Your task to perform on an android device: Open display settings Image 0: 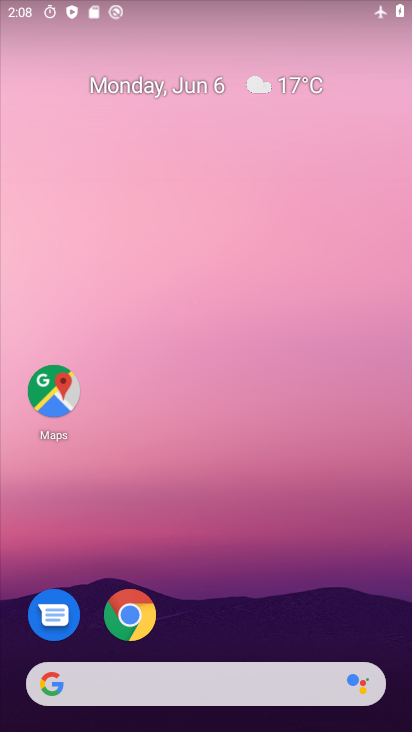
Step 0: drag from (179, 661) to (246, 265)
Your task to perform on an android device: Open display settings Image 1: 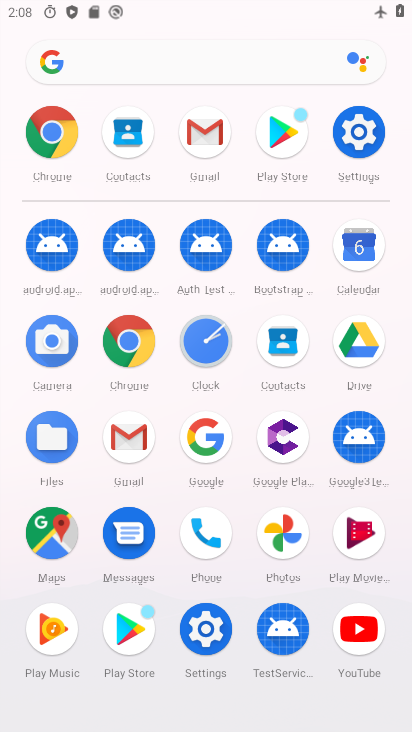
Step 1: click (199, 626)
Your task to perform on an android device: Open display settings Image 2: 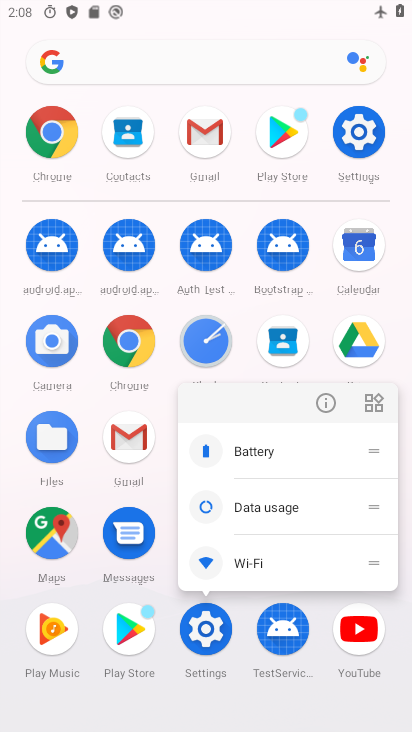
Step 2: click (334, 402)
Your task to perform on an android device: Open display settings Image 3: 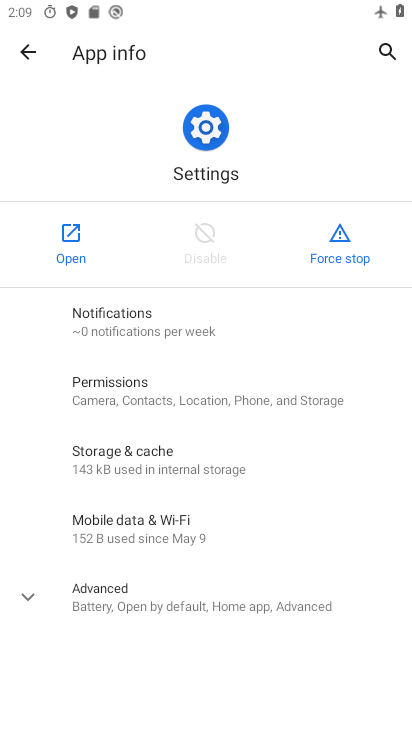
Step 3: click (75, 255)
Your task to perform on an android device: Open display settings Image 4: 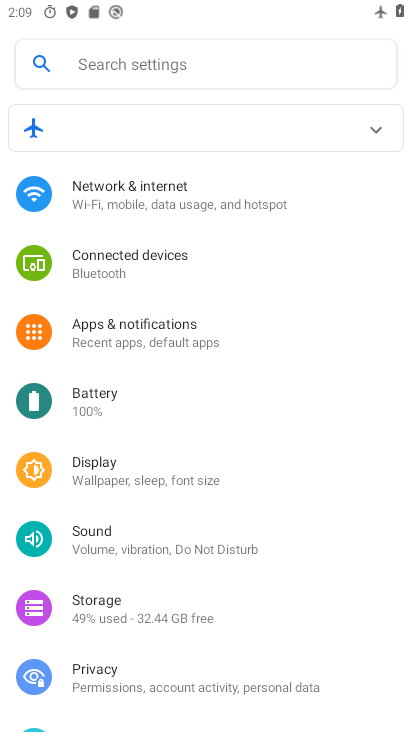
Step 4: click (147, 482)
Your task to perform on an android device: Open display settings Image 5: 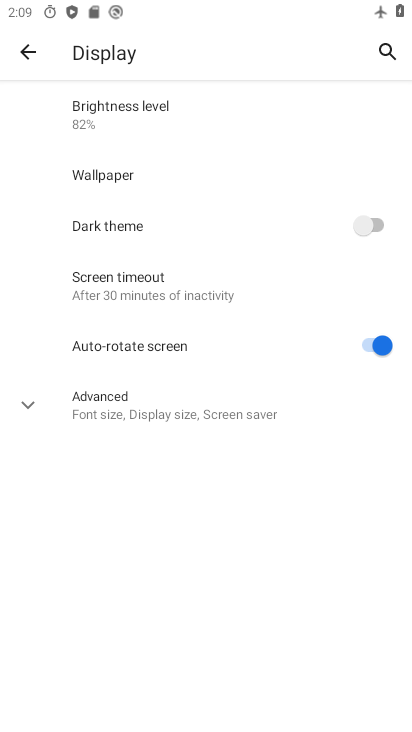
Step 5: click (139, 409)
Your task to perform on an android device: Open display settings Image 6: 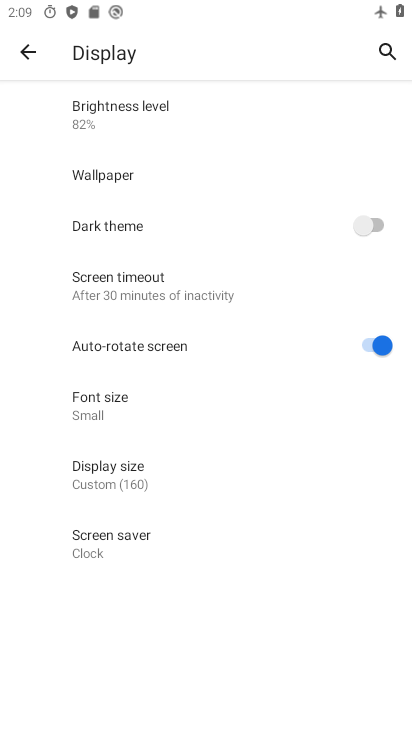
Step 6: task complete